Your task to perform on an android device: Go to privacy settings Image 0: 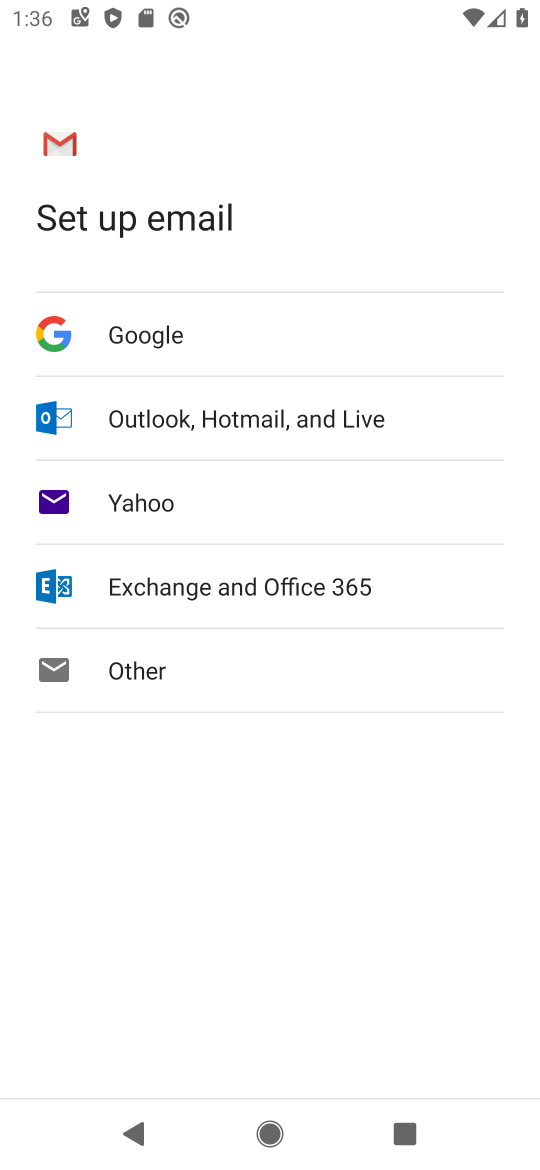
Step 0: press home button
Your task to perform on an android device: Go to privacy settings Image 1: 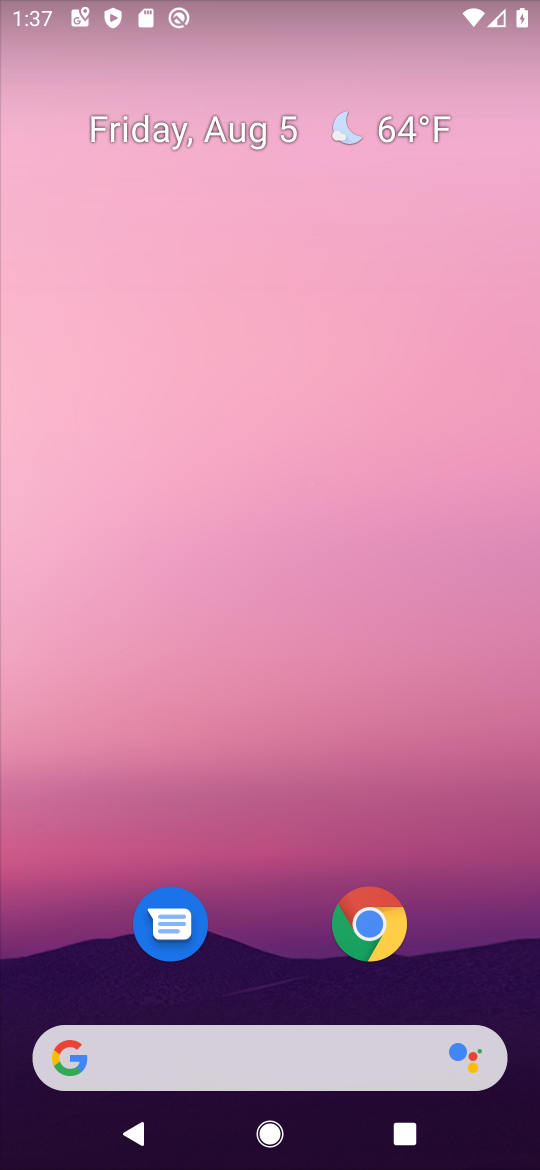
Step 1: drag from (247, 1074) to (394, 238)
Your task to perform on an android device: Go to privacy settings Image 2: 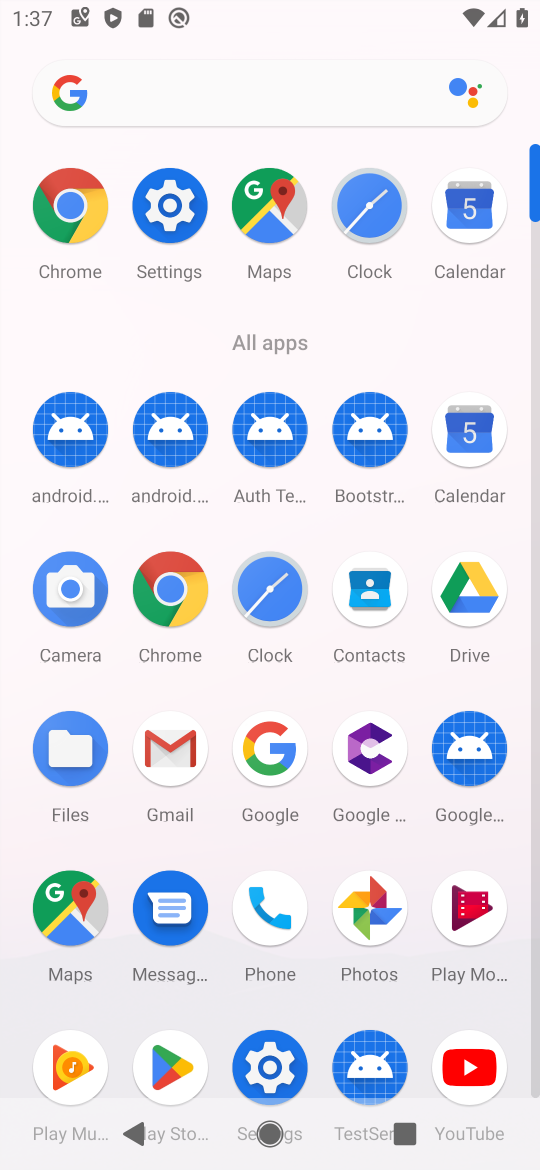
Step 2: click (165, 204)
Your task to perform on an android device: Go to privacy settings Image 3: 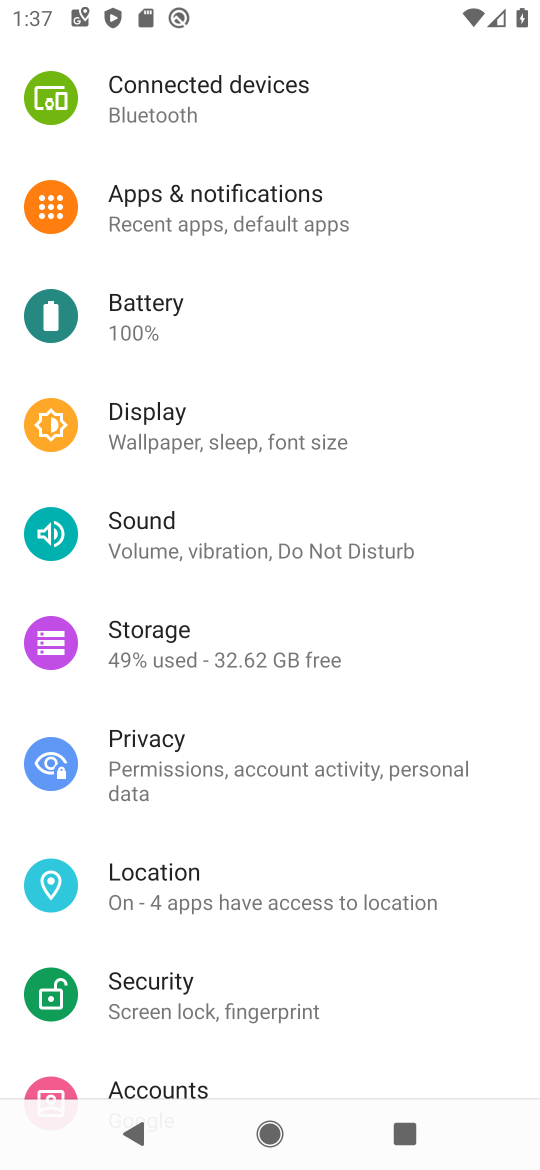
Step 3: click (146, 762)
Your task to perform on an android device: Go to privacy settings Image 4: 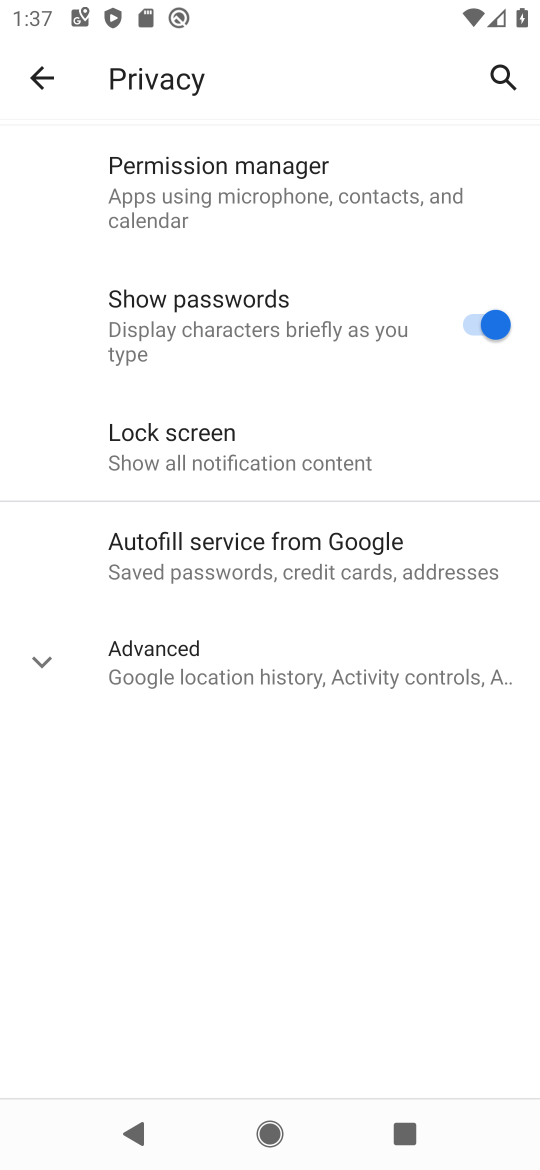
Step 4: task complete